Your task to perform on an android device: Go to Google maps Image 0: 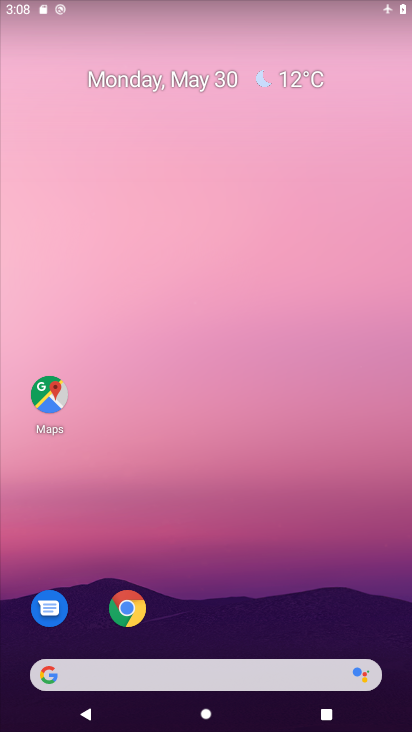
Step 0: click (58, 392)
Your task to perform on an android device: Go to Google maps Image 1: 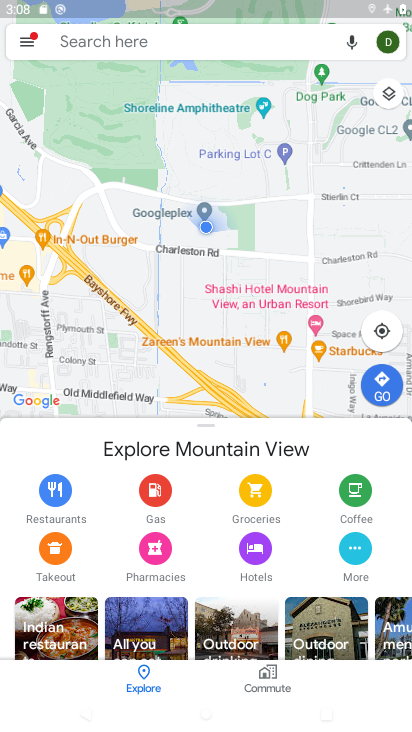
Step 1: task complete